Your task to perform on an android device: Open wifi settings Image 0: 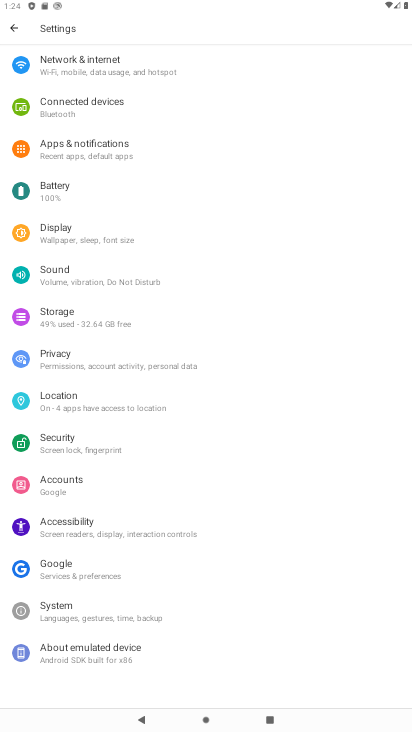
Step 0: drag from (242, 597) to (269, 703)
Your task to perform on an android device: Open wifi settings Image 1: 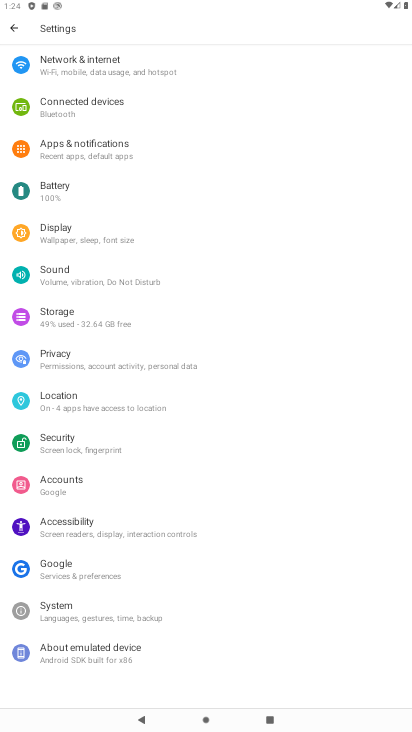
Step 1: click (193, 64)
Your task to perform on an android device: Open wifi settings Image 2: 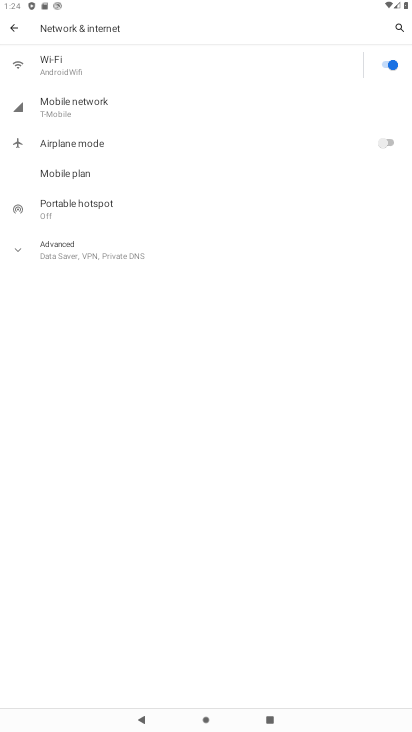
Step 2: click (238, 60)
Your task to perform on an android device: Open wifi settings Image 3: 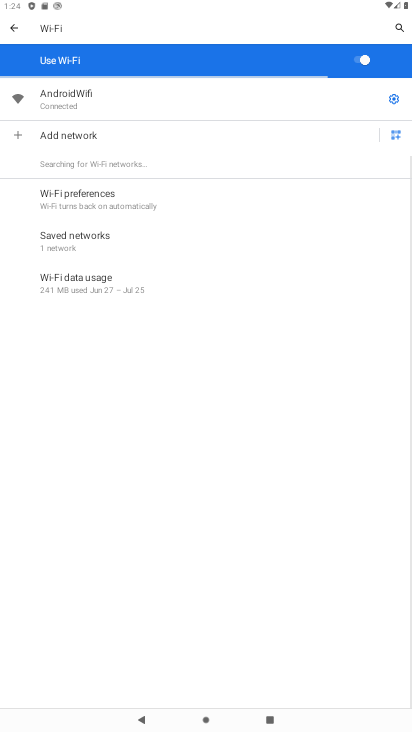
Step 3: click (397, 99)
Your task to perform on an android device: Open wifi settings Image 4: 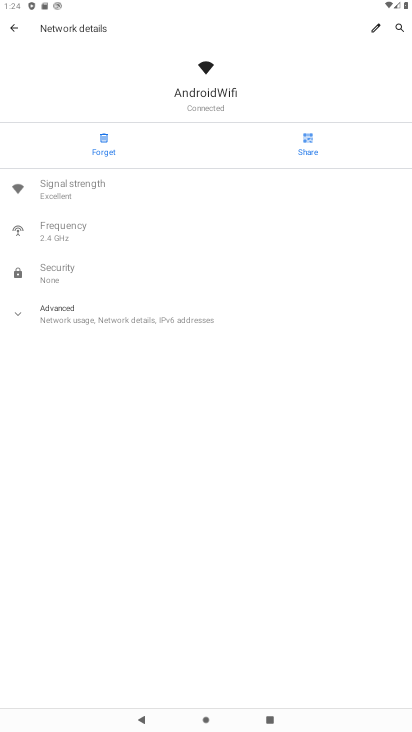
Step 4: task complete